Your task to perform on an android device: turn off location Image 0: 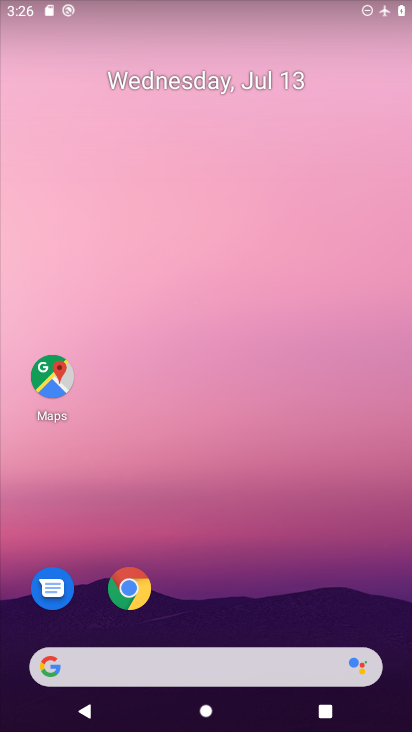
Step 0: drag from (179, 615) to (165, 85)
Your task to perform on an android device: turn off location Image 1: 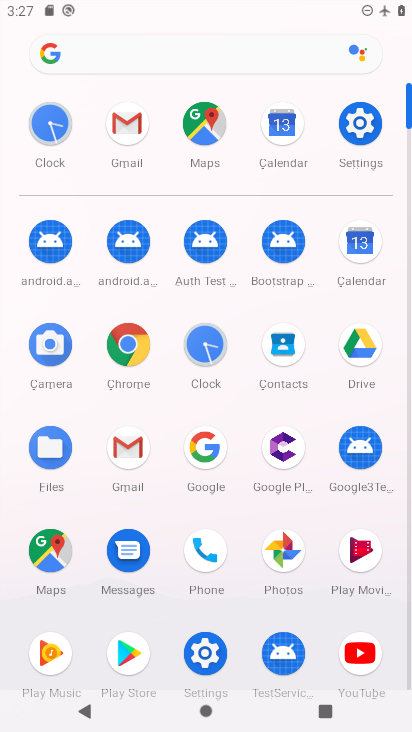
Step 1: click (351, 146)
Your task to perform on an android device: turn off location Image 2: 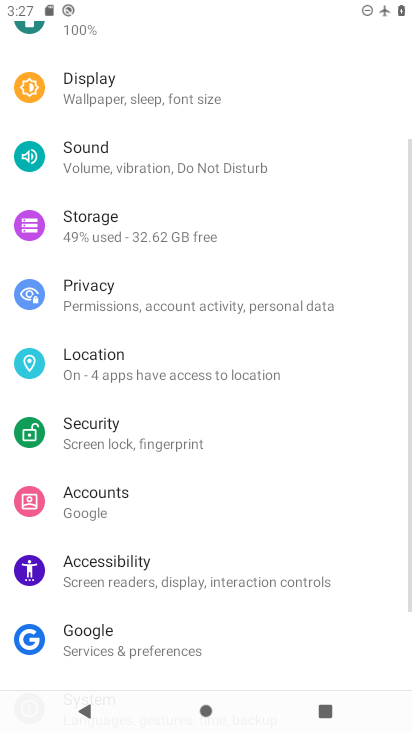
Step 2: click (74, 364)
Your task to perform on an android device: turn off location Image 3: 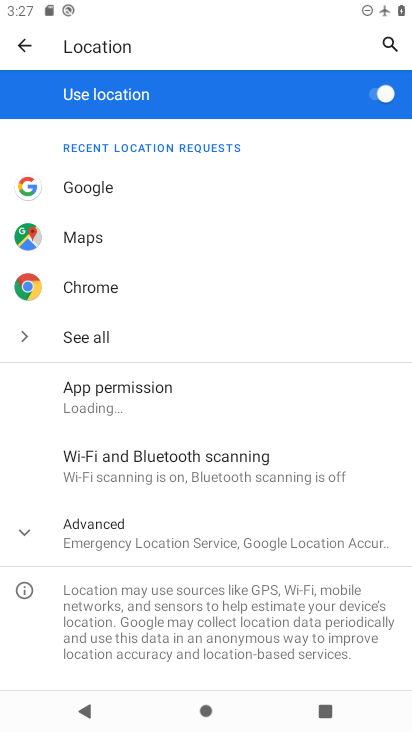
Step 3: click (368, 92)
Your task to perform on an android device: turn off location Image 4: 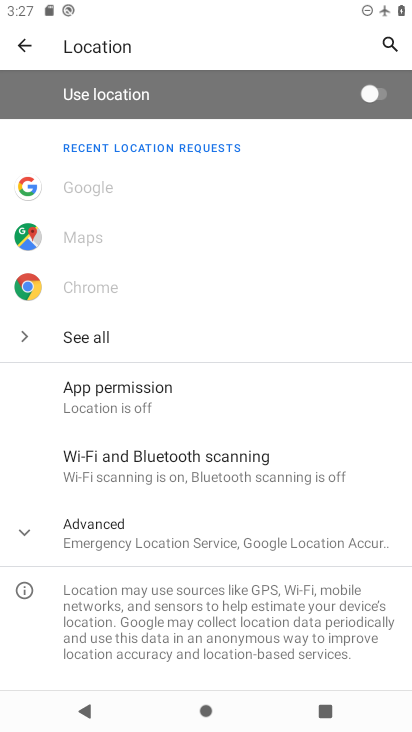
Step 4: task complete